Your task to perform on an android device: Open the stopwatch Image 0: 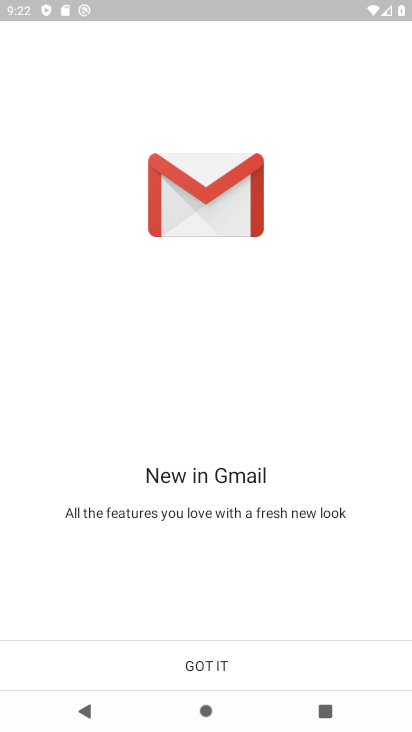
Step 0: press home button
Your task to perform on an android device: Open the stopwatch Image 1: 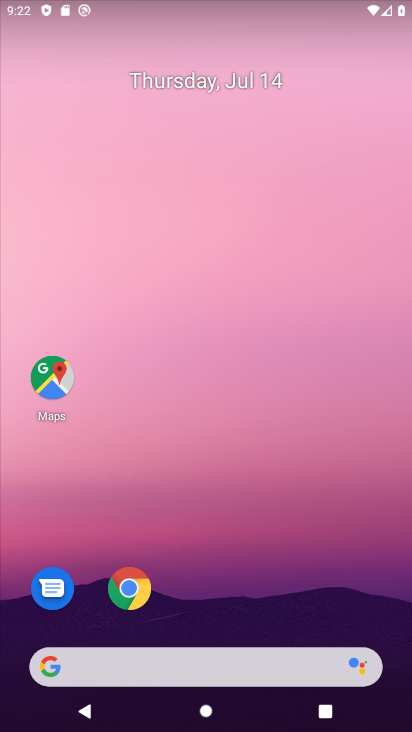
Step 1: drag from (182, 637) to (167, 331)
Your task to perform on an android device: Open the stopwatch Image 2: 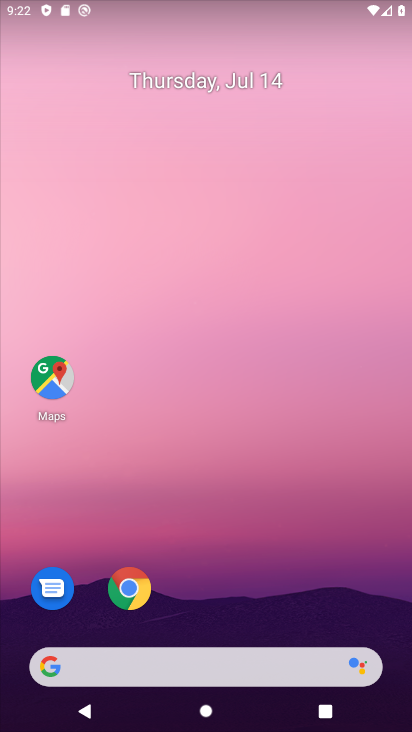
Step 2: drag from (182, 645) to (190, 342)
Your task to perform on an android device: Open the stopwatch Image 3: 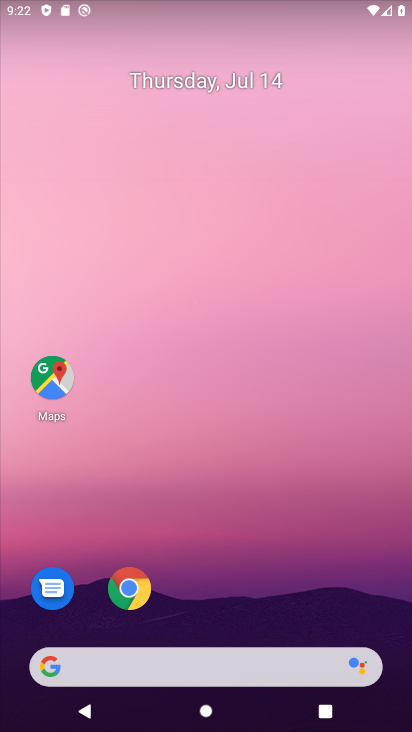
Step 3: drag from (168, 635) to (207, 158)
Your task to perform on an android device: Open the stopwatch Image 4: 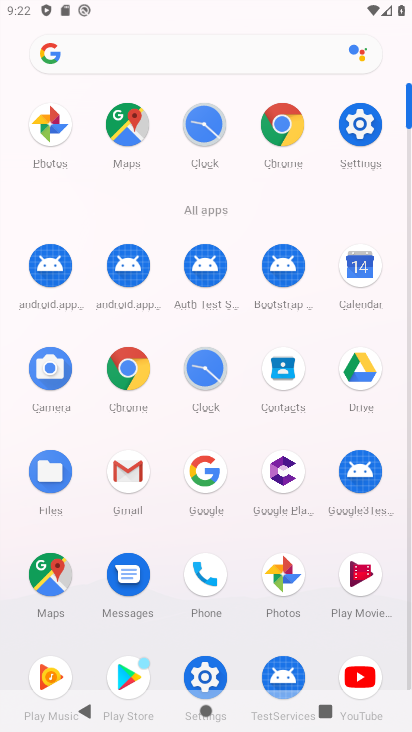
Step 4: click (196, 122)
Your task to perform on an android device: Open the stopwatch Image 5: 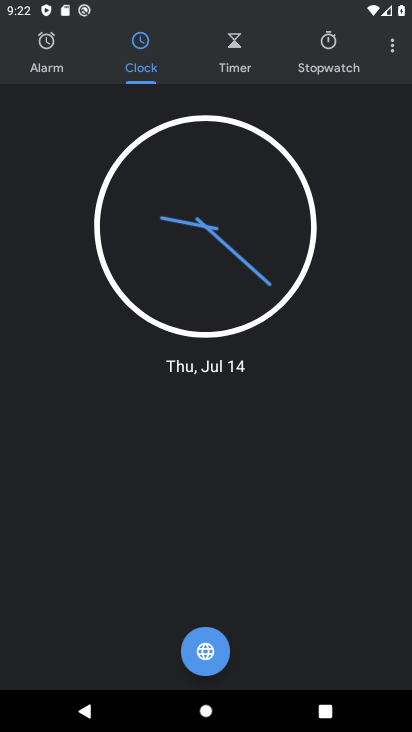
Step 5: click (320, 67)
Your task to perform on an android device: Open the stopwatch Image 6: 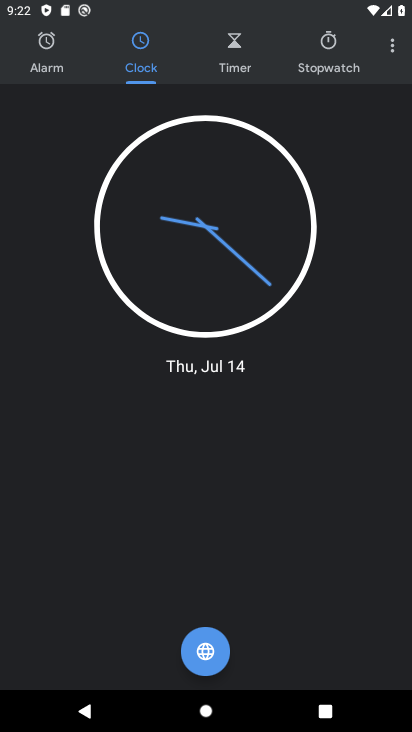
Step 6: click (323, 45)
Your task to perform on an android device: Open the stopwatch Image 7: 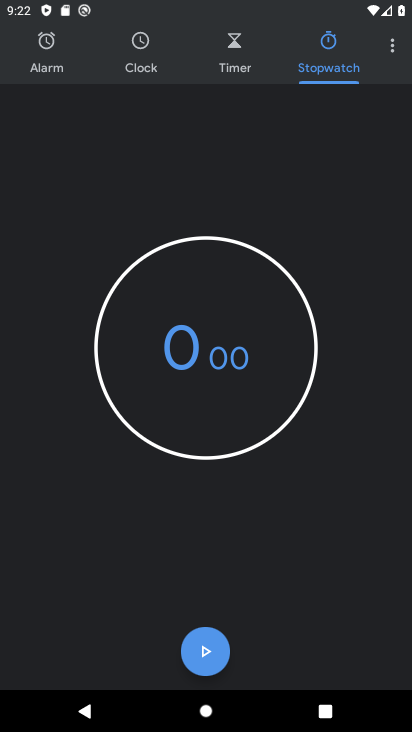
Step 7: task complete